Your task to perform on an android device: Go to Maps Image 0: 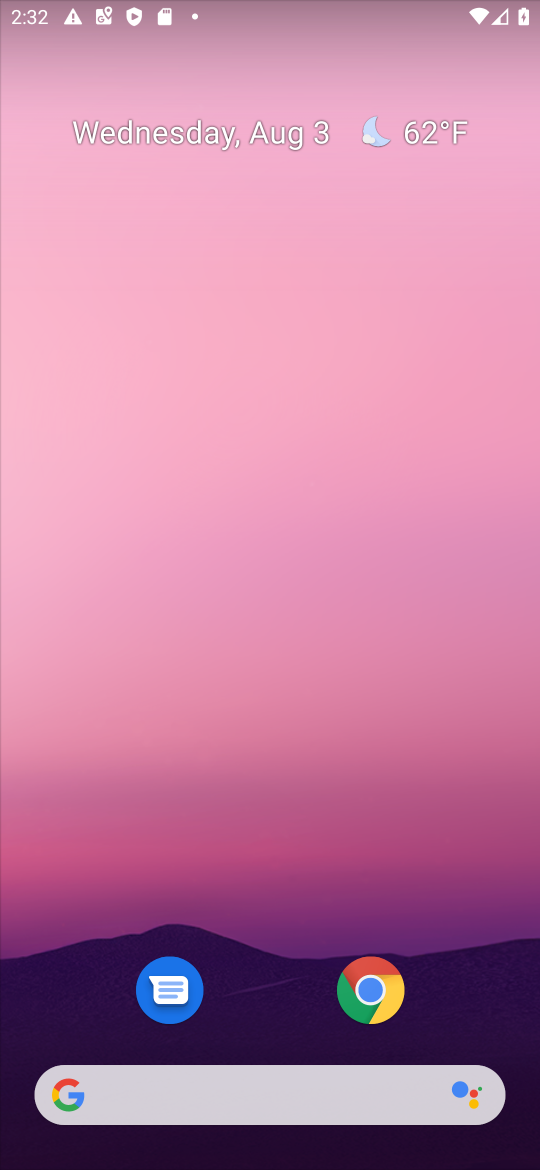
Step 0: drag from (269, 1013) to (271, 187)
Your task to perform on an android device: Go to Maps Image 1: 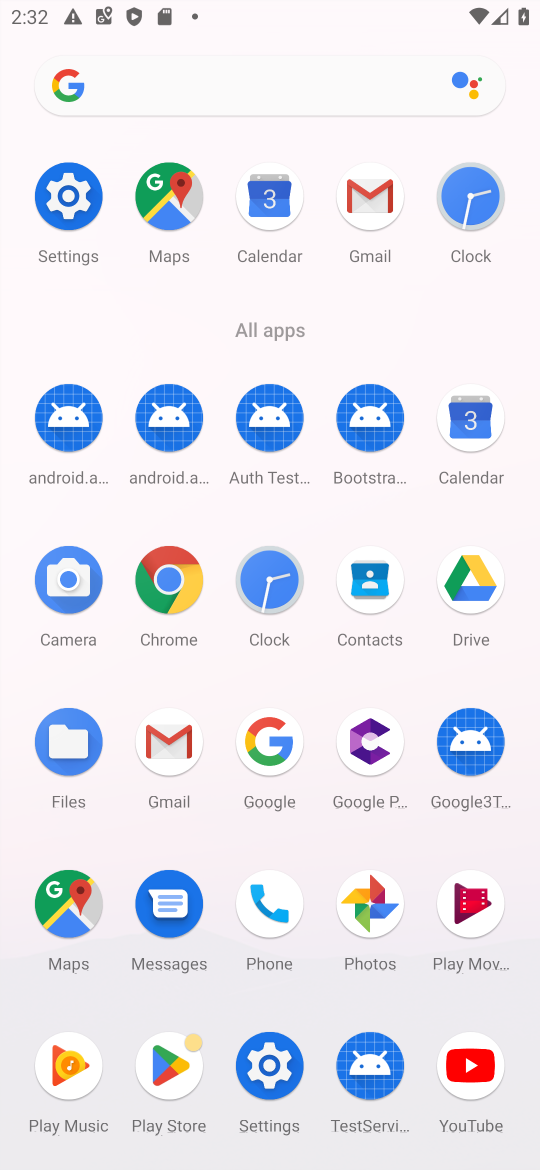
Step 1: click (73, 921)
Your task to perform on an android device: Go to Maps Image 2: 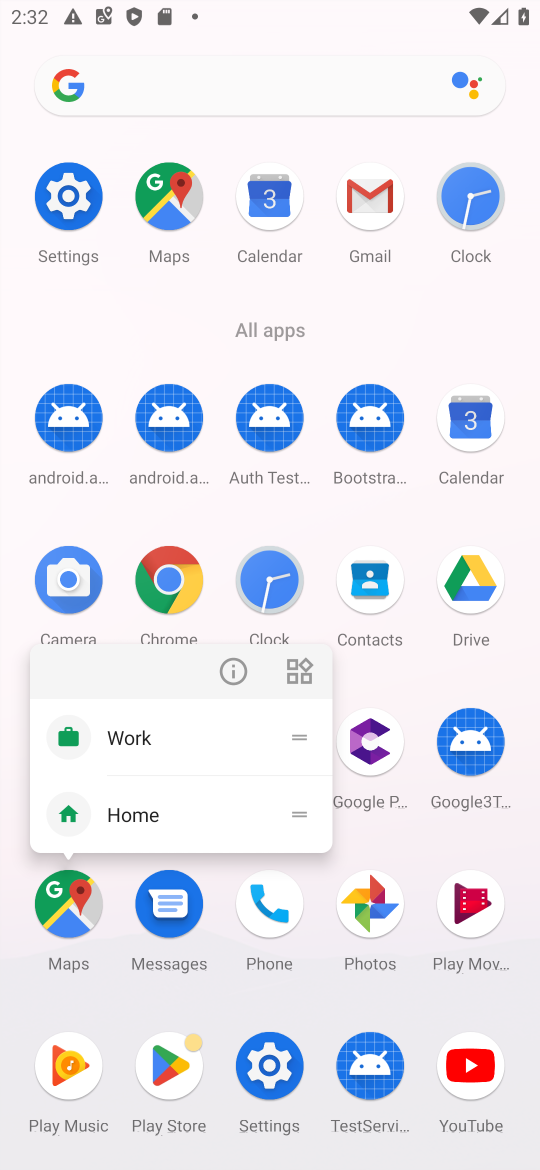
Step 2: click (66, 931)
Your task to perform on an android device: Go to Maps Image 3: 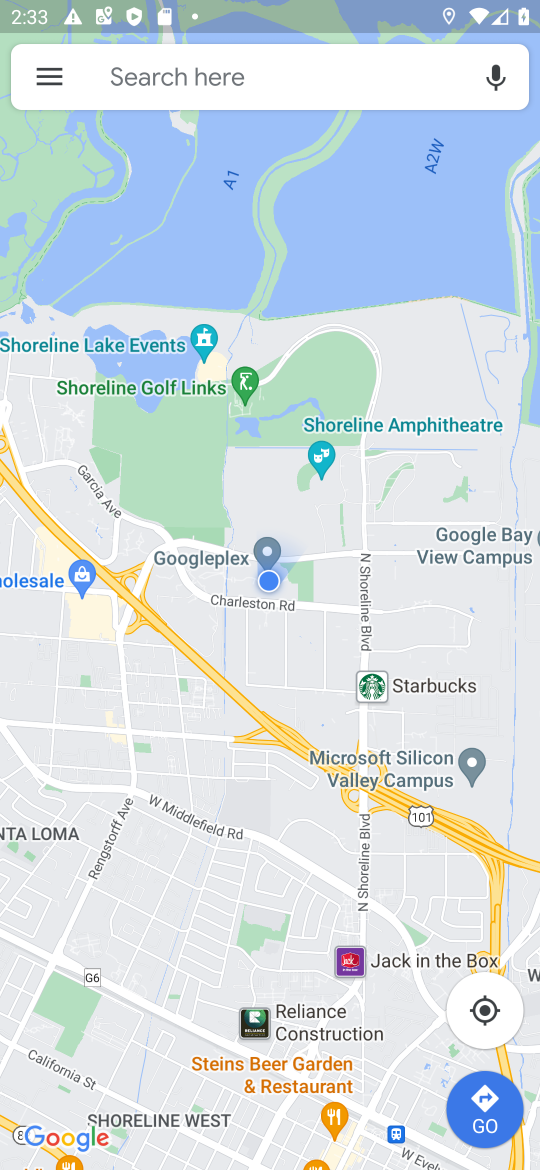
Step 3: task complete